Your task to perform on an android device: Open Google Maps Image 0: 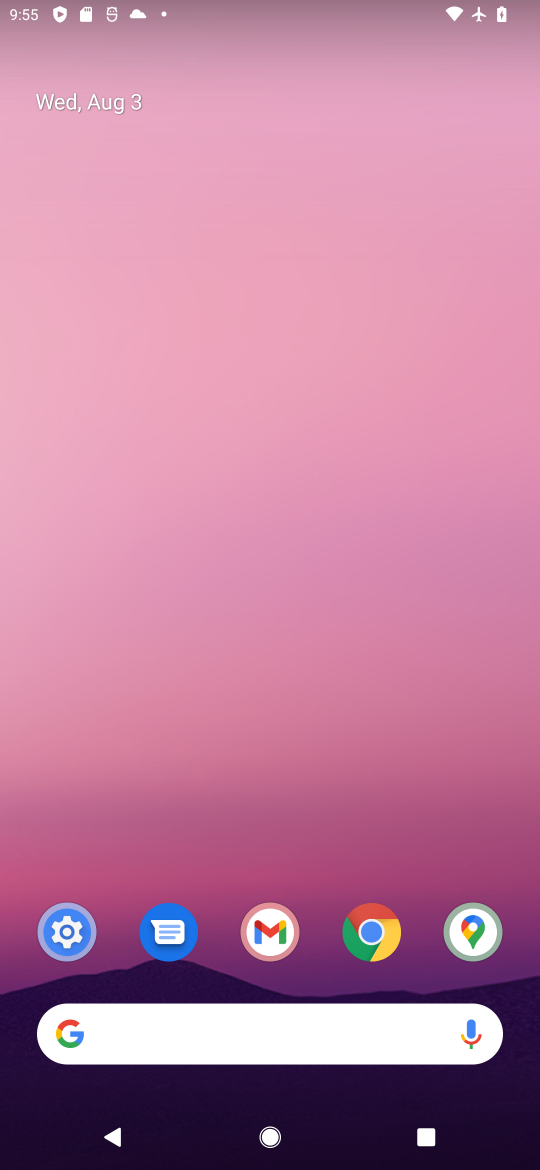
Step 0: click (487, 941)
Your task to perform on an android device: Open Google Maps Image 1: 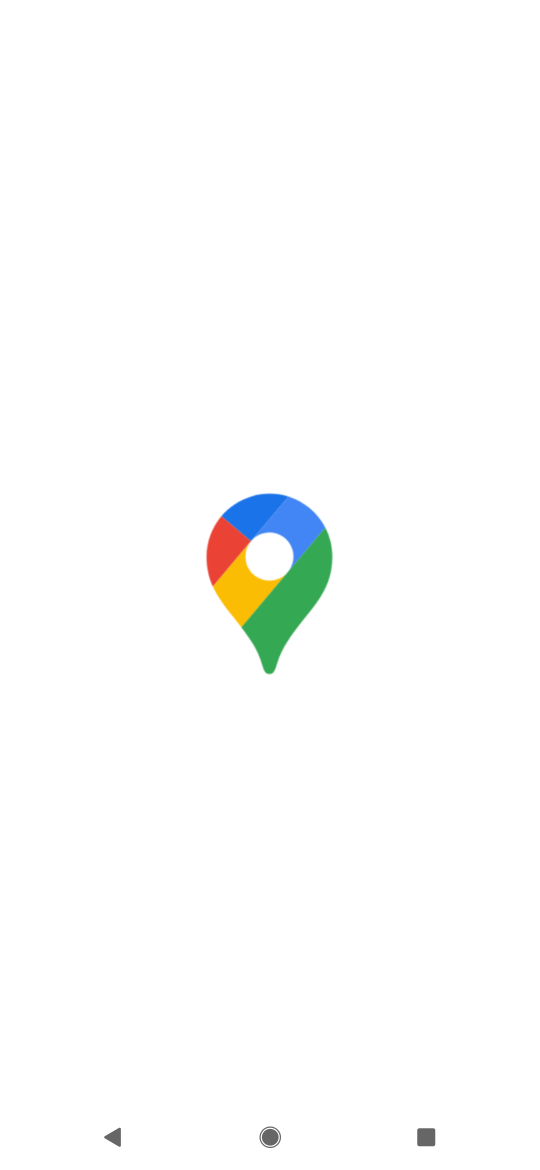
Step 1: task complete